Your task to perform on an android device: Go to internet settings Image 0: 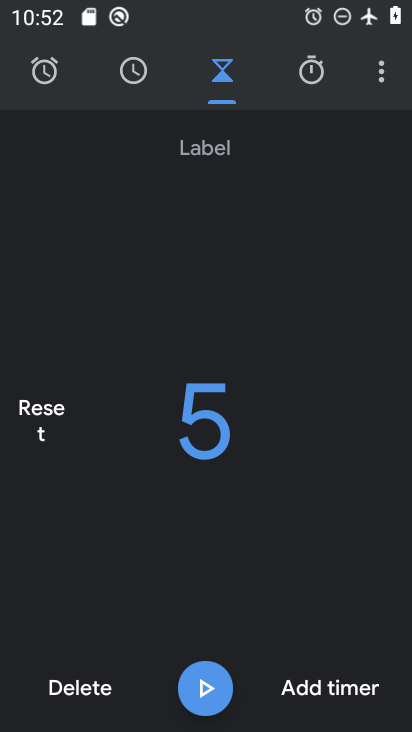
Step 0: press home button
Your task to perform on an android device: Go to internet settings Image 1: 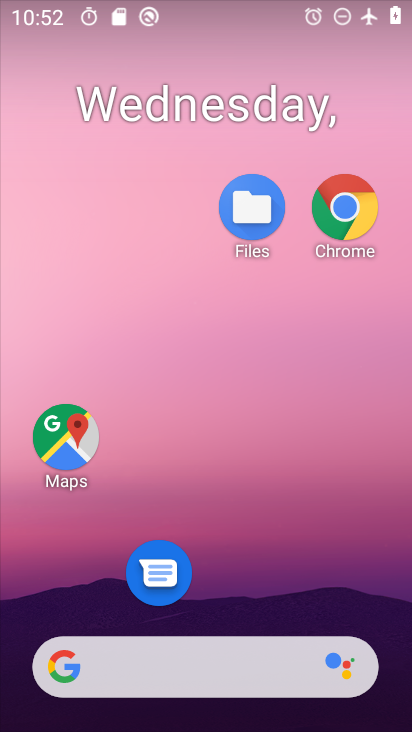
Step 1: drag from (219, 617) to (206, 248)
Your task to perform on an android device: Go to internet settings Image 2: 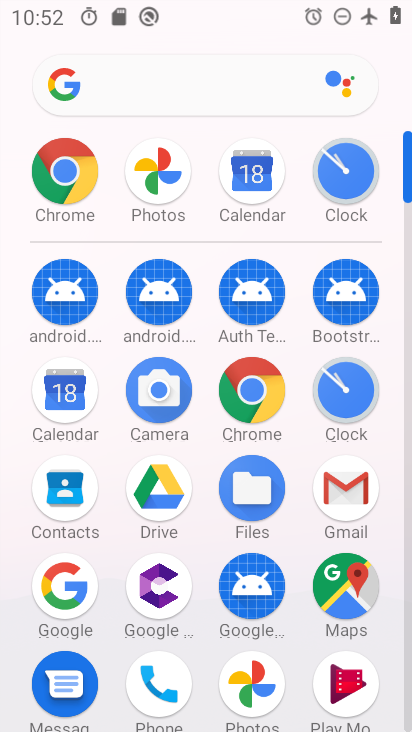
Step 2: drag from (251, 573) to (292, 264)
Your task to perform on an android device: Go to internet settings Image 3: 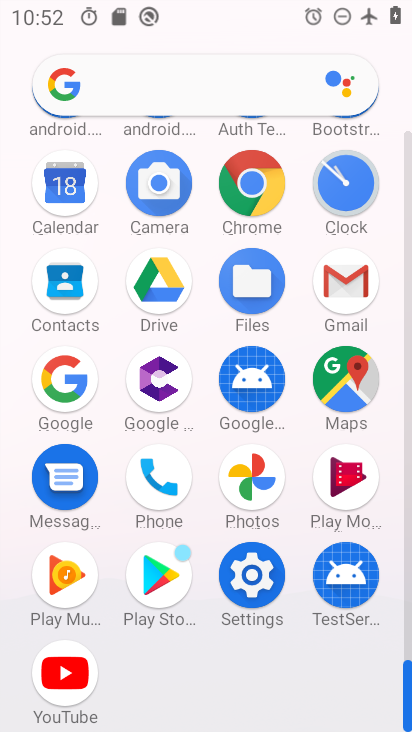
Step 3: click (252, 571)
Your task to perform on an android device: Go to internet settings Image 4: 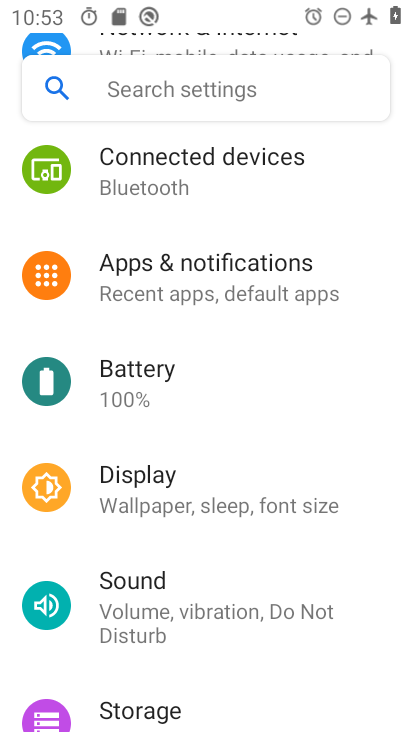
Step 4: drag from (207, 326) to (228, 638)
Your task to perform on an android device: Go to internet settings Image 5: 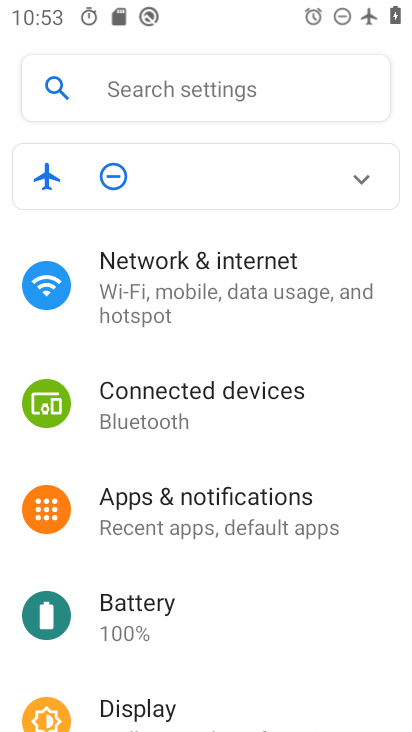
Step 5: click (246, 335)
Your task to perform on an android device: Go to internet settings Image 6: 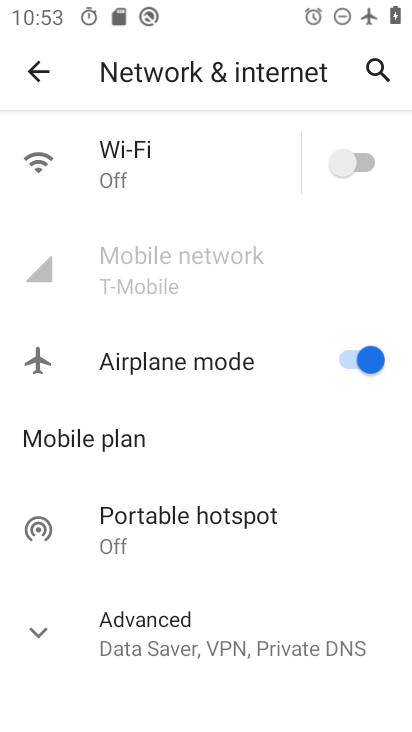
Step 6: task complete